Your task to perform on an android device: Open the calendar app, open the side menu, and click the "Day" option Image 0: 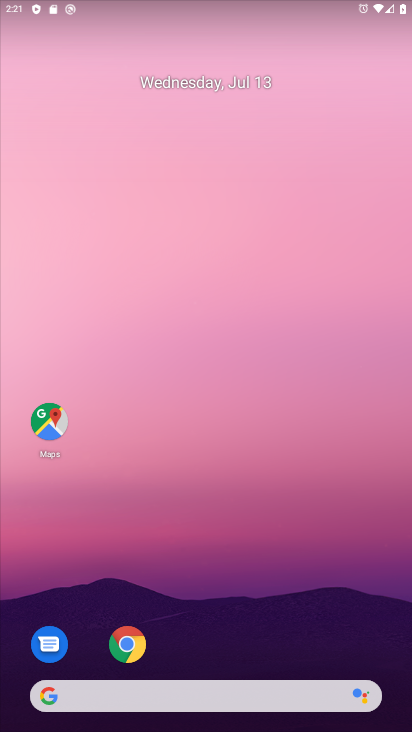
Step 0: drag from (149, 661) to (213, 4)
Your task to perform on an android device: Open the calendar app, open the side menu, and click the "Day" option Image 1: 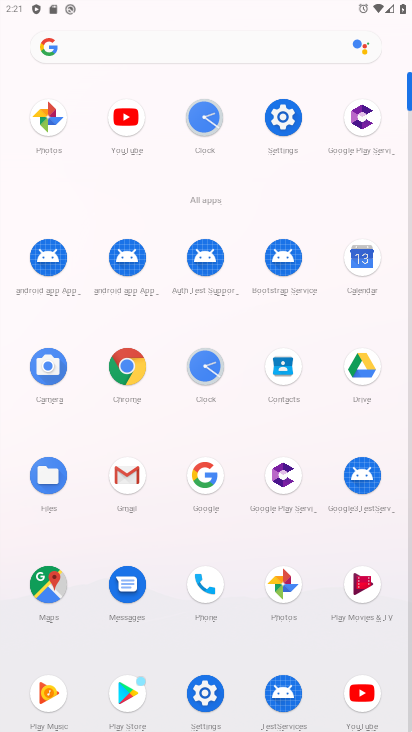
Step 1: click (365, 260)
Your task to perform on an android device: Open the calendar app, open the side menu, and click the "Day" option Image 2: 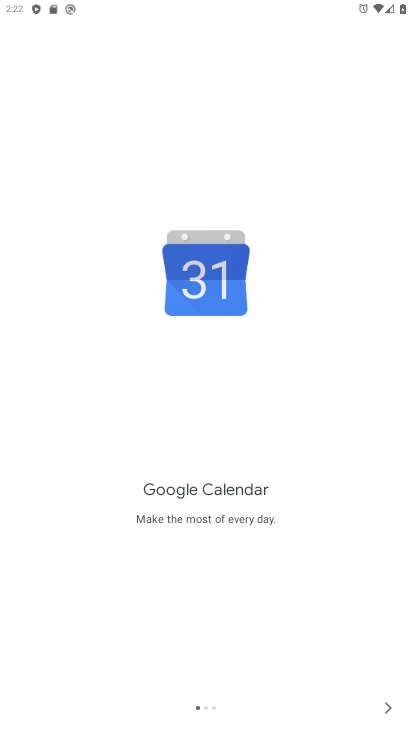
Step 2: click (389, 705)
Your task to perform on an android device: Open the calendar app, open the side menu, and click the "Day" option Image 3: 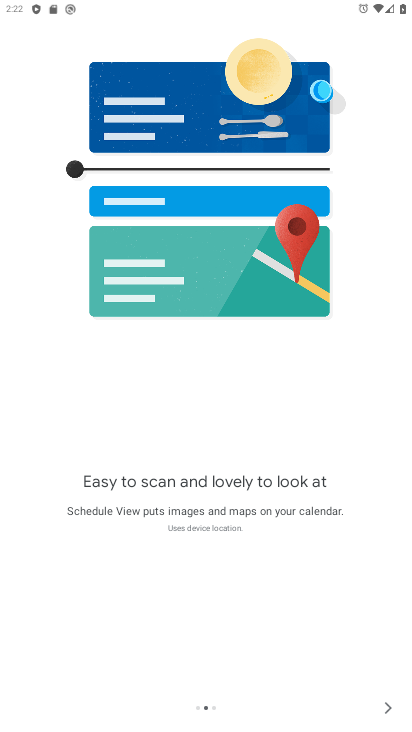
Step 3: click (389, 705)
Your task to perform on an android device: Open the calendar app, open the side menu, and click the "Day" option Image 4: 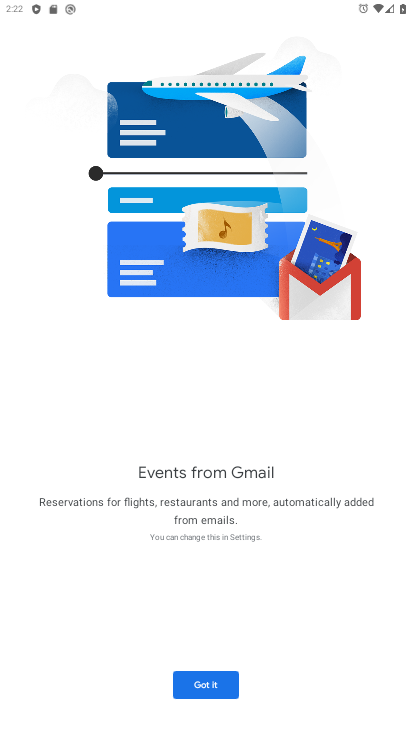
Step 4: click (216, 680)
Your task to perform on an android device: Open the calendar app, open the side menu, and click the "Day" option Image 5: 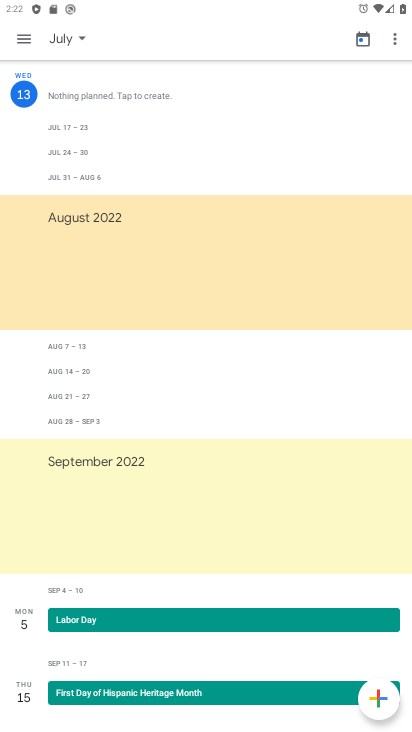
Step 5: click (25, 37)
Your task to perform on an android device: Open the calendar app, open the side menu, and click the "Day" option Image 6: 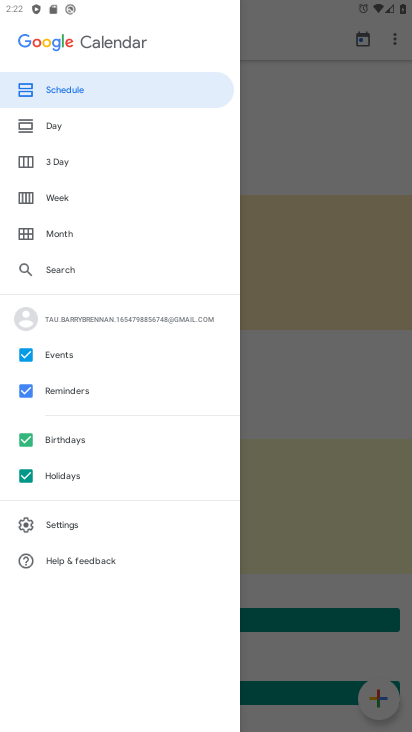
Step 6: click (60, 131)
Your task to perform on an android device: Open the calendar app, open the side menu, and click the "Day" option Image 7: 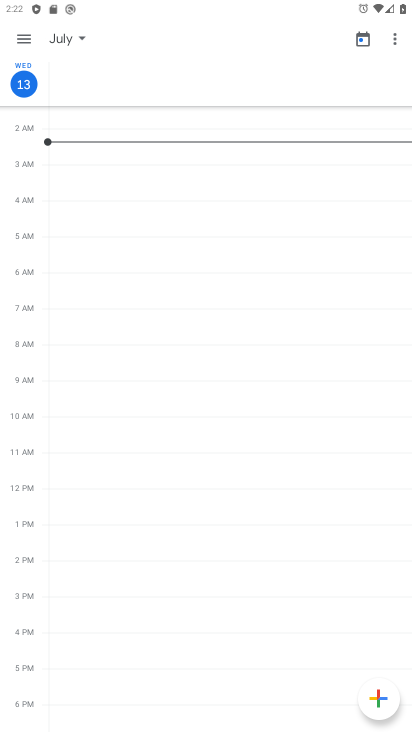
Step 7: task complete